Your task to perform on an android device: Open Youtube and go to "Your channel" Image 0: 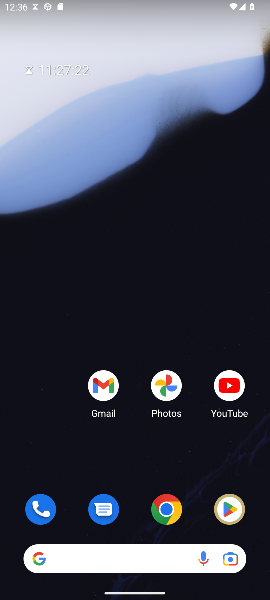
Step 0: press home button
Your task to perform on an android device: Open Youtube and go to "Your channel" Image 1: 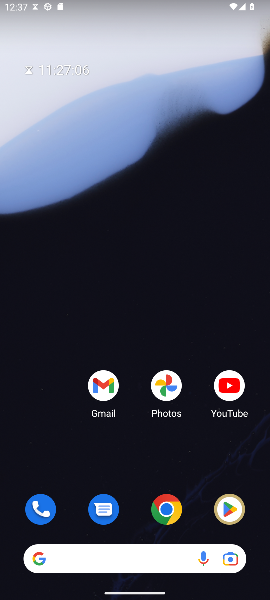
Step 1: click (233, 400)
Your task to perform on an android device: Open Youtube and go to "Your channel" Image 2: 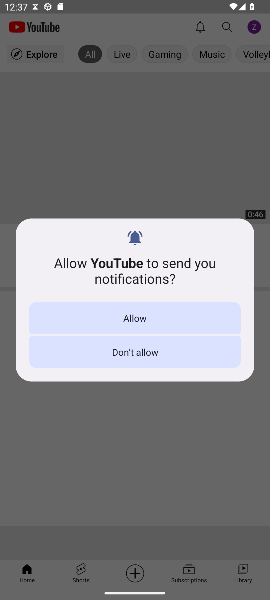
Step 2: click (139, 316)
Your task to perform on an android device: Open Youtube and go to "Your channel" Image 3: 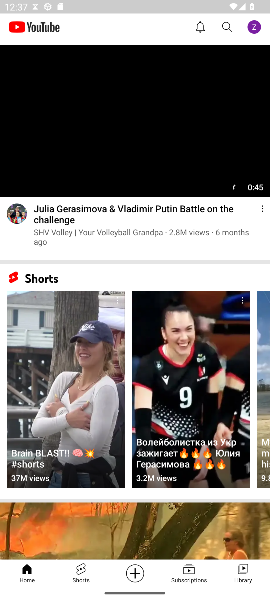
Step 3: click (255, 25)
Your task to perform on an android device: Open Youtube and go to "Your channel" Image 4: 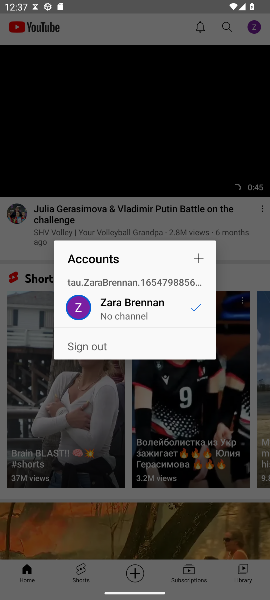
Step 4: click (255, 25)
Your task to perform on an android device: Open Youtube and go to "Your channel" Image 5: 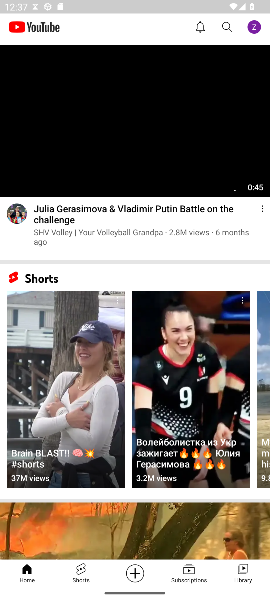
Step 5: click (250, 32)
Your task to perform on an android device: Open Youtube and go to "Your channel" Image 6: 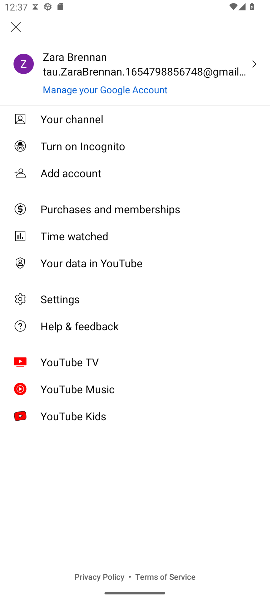
Step 6: click (75, 120)
Your task to perform on an android device: Open Youtube and go to "Your channel" Image 7: 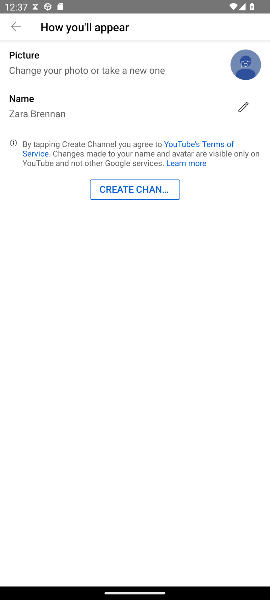
Step 7: task complete